Your task to perform on an android device: visit the assistant section in the google photos Image 0: 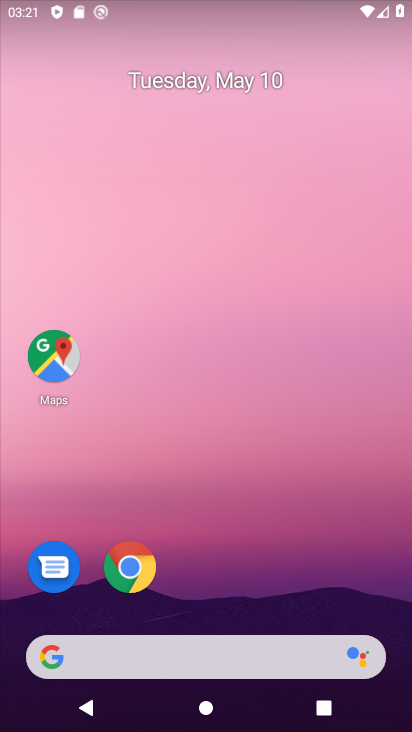
Step 0: click (265, 175)
Your task to perform on an android device: visit the assistant section in the google photos Image 1: 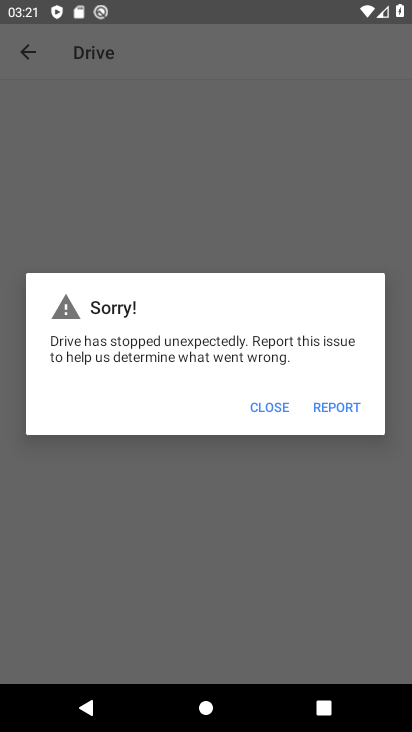
Step 1: press home button
Your task to perform on an android device: visit the assistant section in the google photos Image 2: 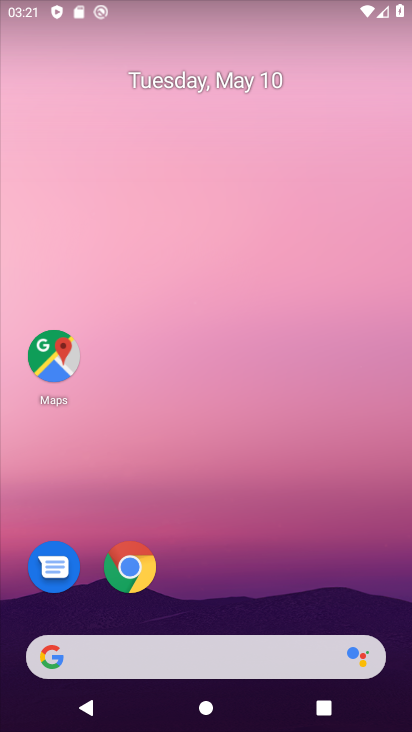
Step 2: drag from (226, 568) to (260, 46)
Your task to perform on an android device: visit the assistant section in the google photos Image 3: 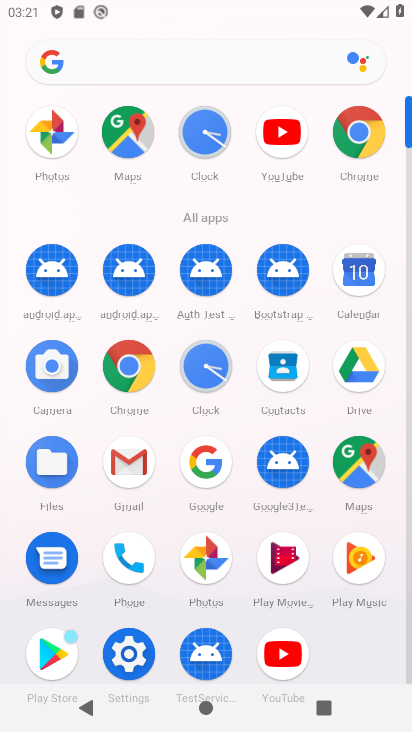
Step 3: click (207, 559)
Your task to perform on an android device: visit the assistant section in the google photos Image 4: 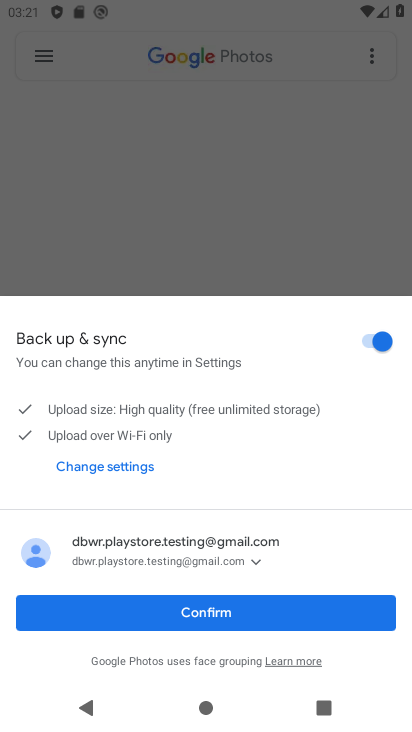
Step 4: click (228, 617)
Your task to perform on an android device: visit the assistant section in the google photos Image 5: 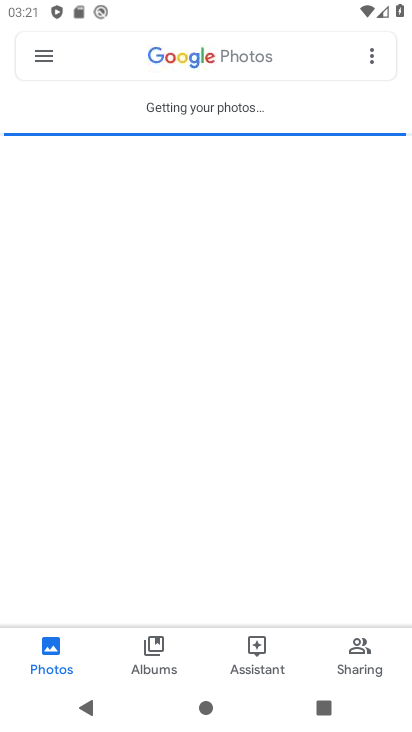
Step 5: click (256, 660)
Your task to perform on an android device: visit the assistant section in the google photos Image 6: 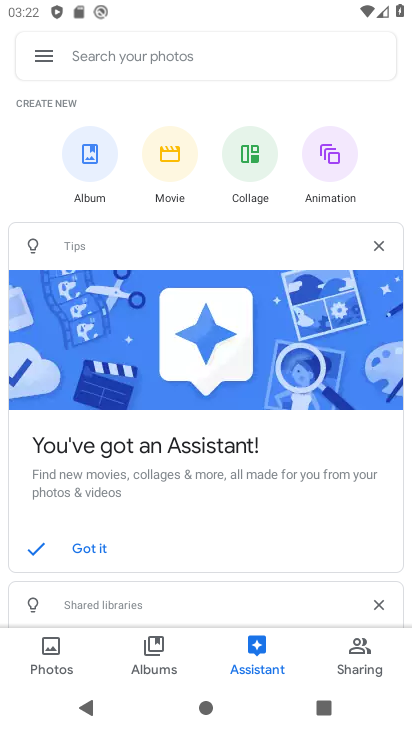
Step 6: task complete